Your task to perform on an android device: Search for pizza restaurants on Maps Image 0: 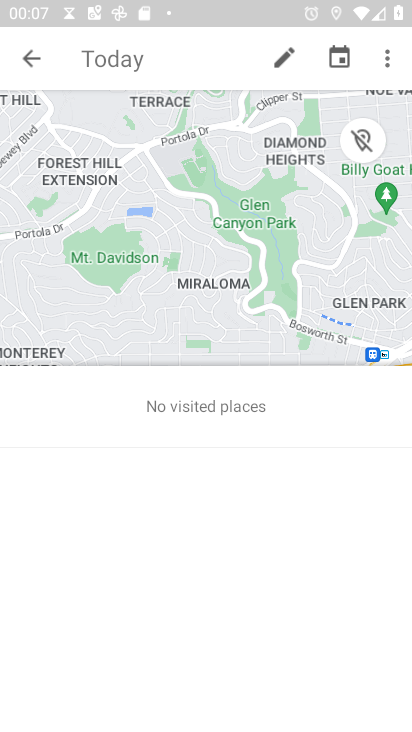
Step 0: click (34, 57)
Your task to perform on an android device: Search for pizza restaurants on Maps Image 1: 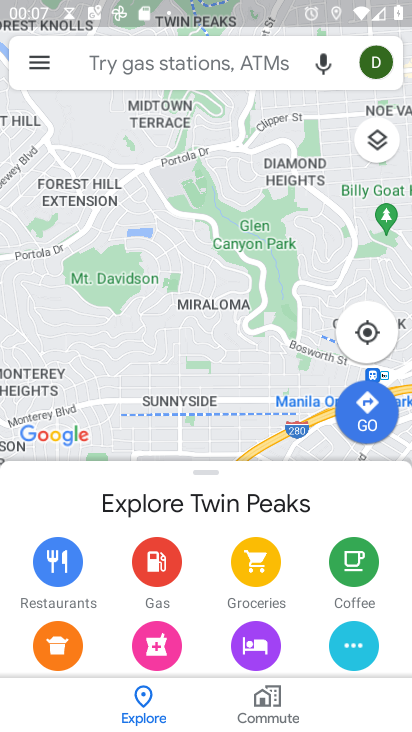
Step 1: click (211, 71)
Your task to perform on an android device: Search for pizza restaurants on Maps Image 2: 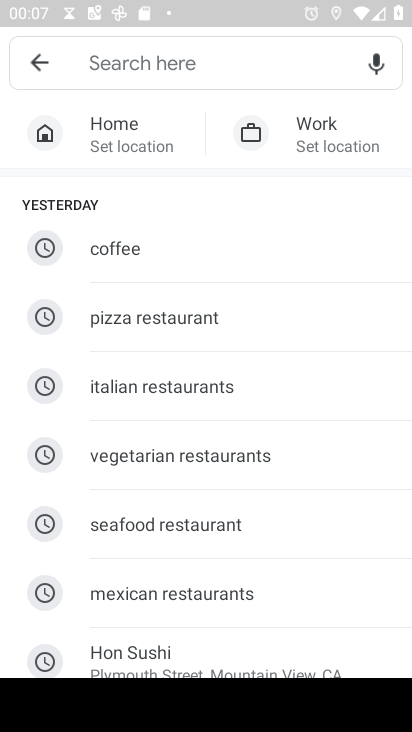
Step 2: type "Pizza restaurants"
Your task to perform on an android device: Search for pizza restaurants on Maps Image 3: 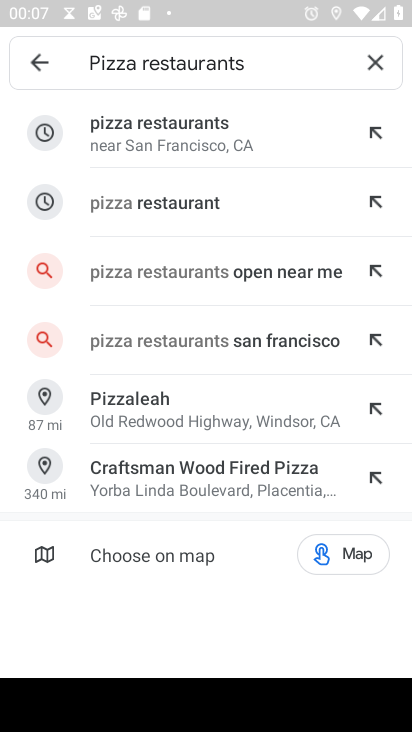
Step 3: click (150, 135)
Your task to perform on an android device: Search for pizza restaurants on Maps Image 4: 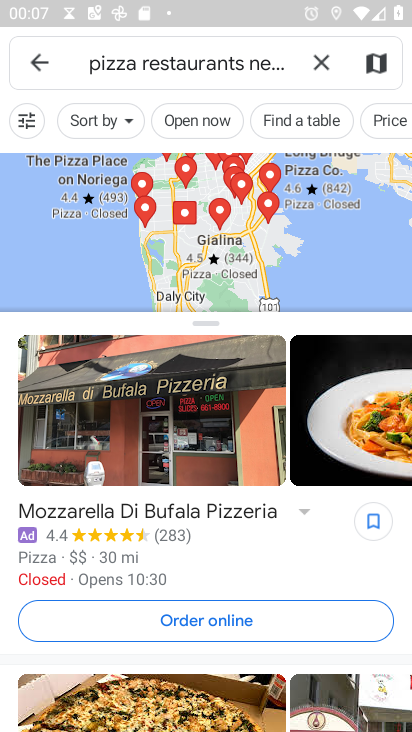
Step 4: task complete